Your task to perform on an android device: stop showing notifications on the lock screen Image 0: 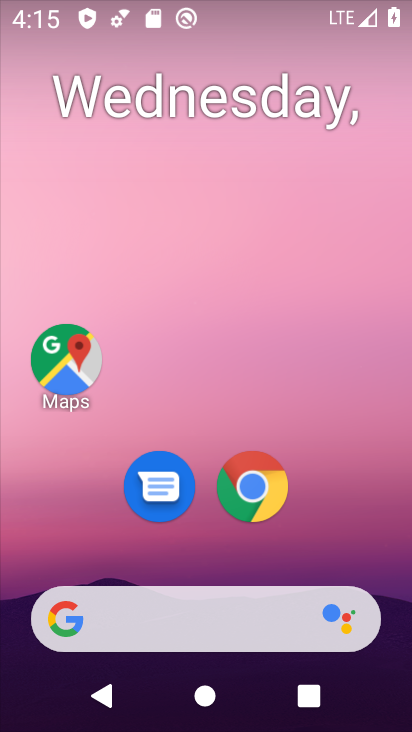
Step 0: drag from (402, 645) to (387, 234)
Your task to perform on an android device: stop showing notifications on the lock screen Image 1: 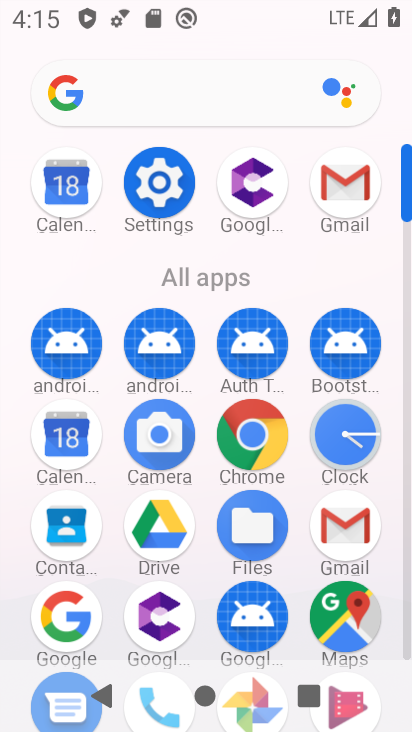
Step 1: click (160, 186)
Your task to perform on an android device: stop showing notifications on the lock screen Image 2: 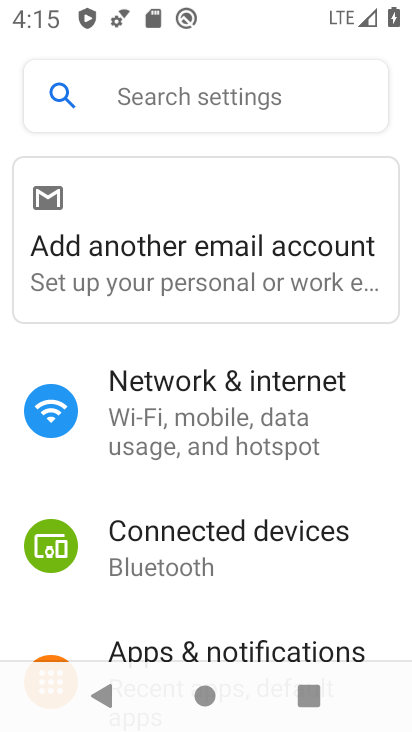
Step 2: drag from (375, 637) to (359, 329)
Your task to perform on an android device: stop showing notifications on the lock screen Image 3: 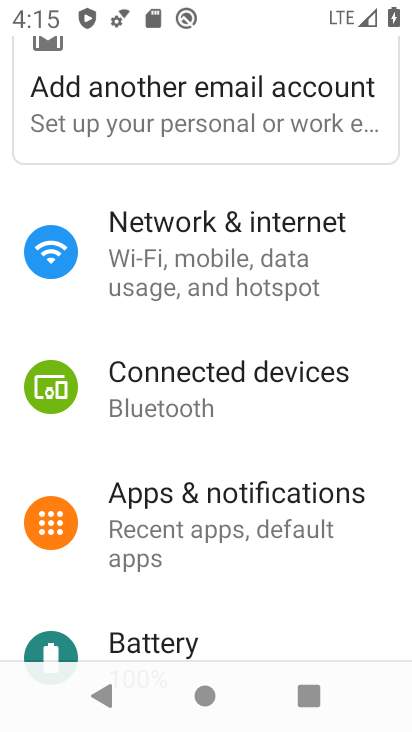
Step 3: click (156, 518)
Your task to perform on an android device: stop showing notifications on the lock screen Image 4: 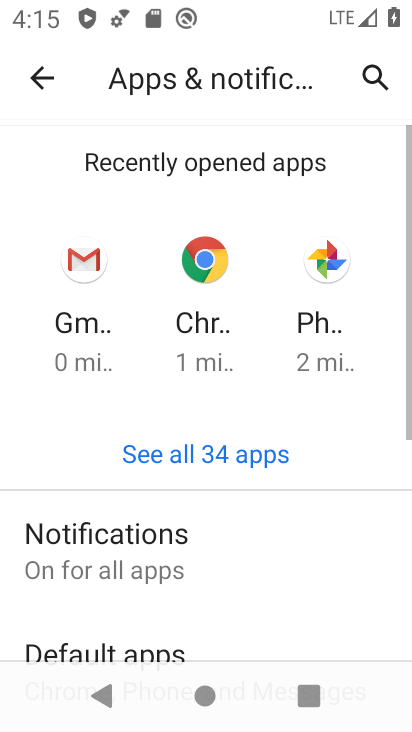
Step 4: click (125, 529)
Your task to perform on an android device: stop showing notifications on the lock screen Image 5: 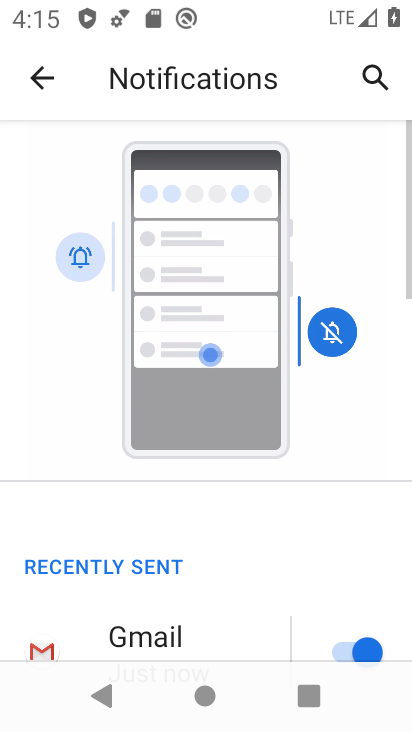
Step 5: drag from (247, 640) to (300, 54)
Your task to perform on an android device: stop showing notifications on the lock screen Image 6: 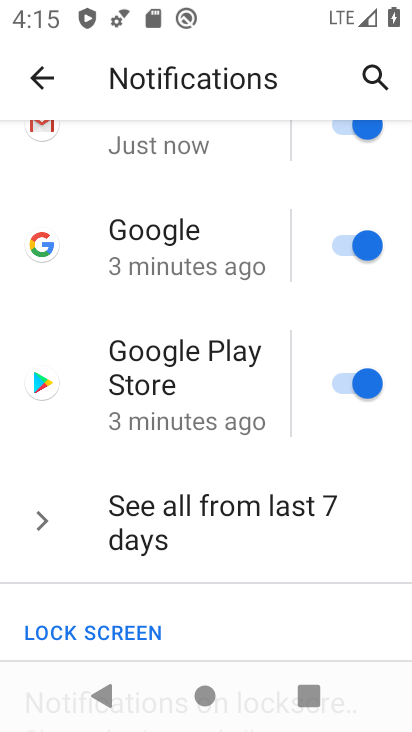
Step 6: drag from (229, 624) to (210, 186)
Your task to perform on an android device: stop showing notifications on the lock screen Image 7: 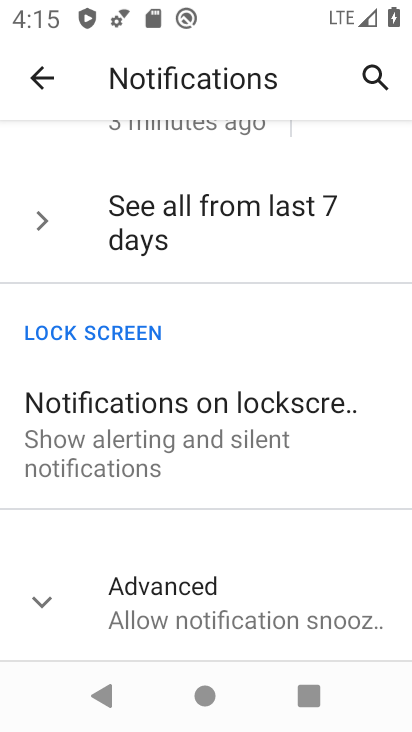
Step 7: click (116, 417)
Your task to perform on an android device: stop showing notifications on the lock screen Image 8: 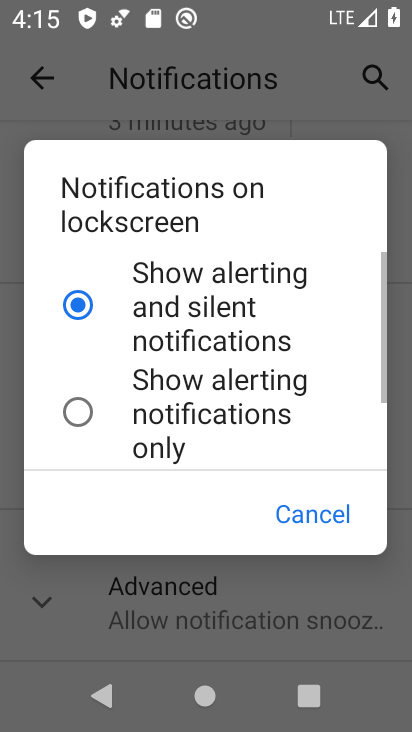
Step 8: click (93, 405)
Your task to perform on an android device: stop showing notifications on the lock screen Image 9: 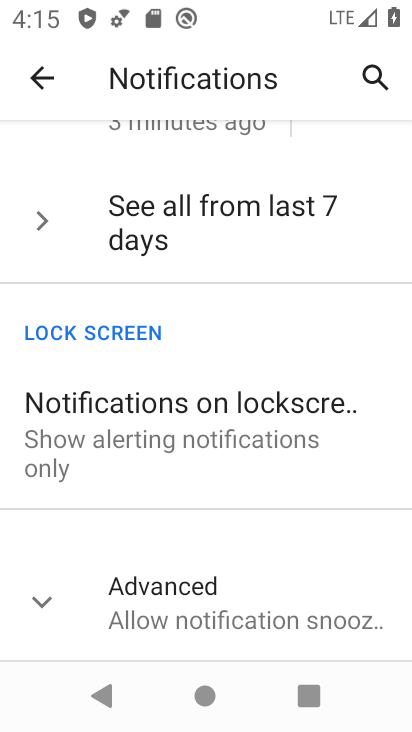
Step 9: task complete